Your task to perform on an android device: Open maps Image 0: 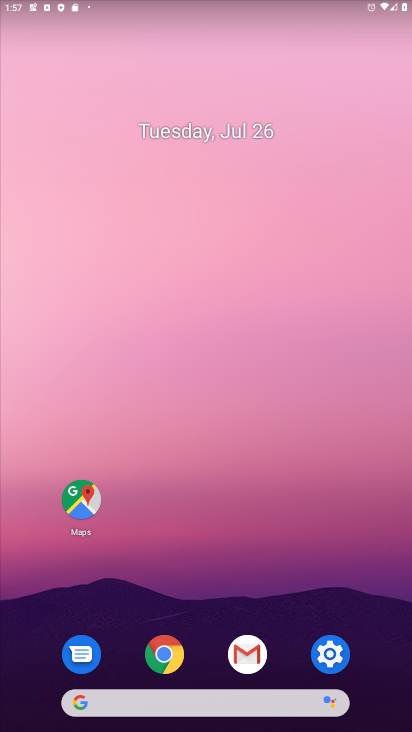
Step 0: drag from (265, 701) to (217, 362)
Your task to perform on an android device: Open maps Image 1: 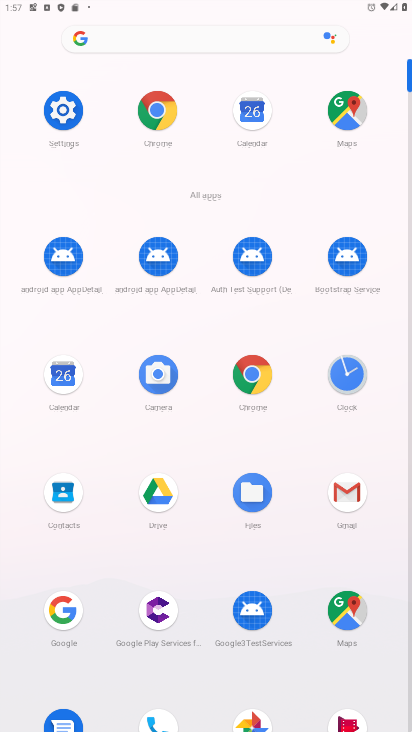
Step 1: click (345, 126)
Your task to perform on an android device: Open maps Image 2: 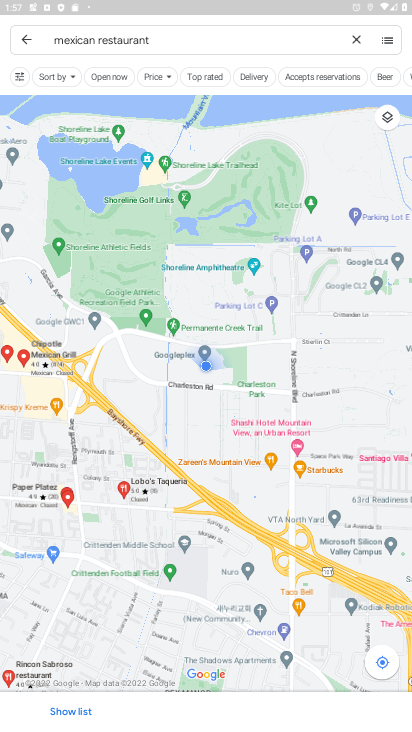
Step 2: click (26, 34)
Your task to perform on an android device: Open maps Image 3: 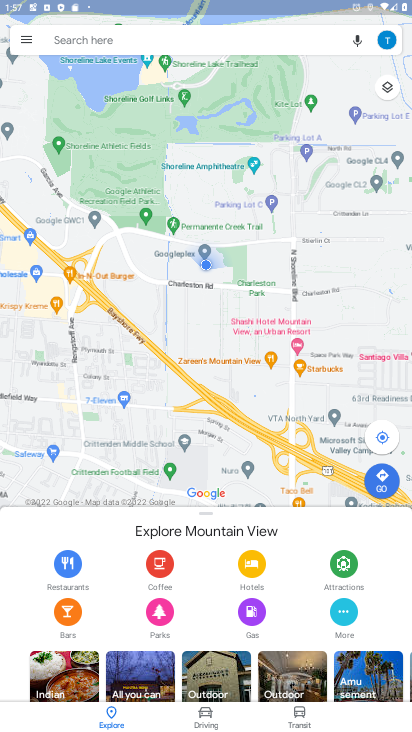
Step 3: click (384, 431)
Your task to perform on an android device: Open maps Image 4: 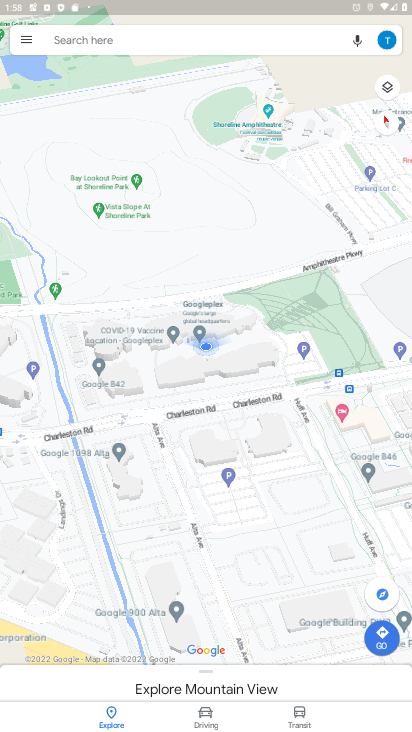
Step 4: click (375, 589)
Your task to perform on an android device: Open maps Image 5: 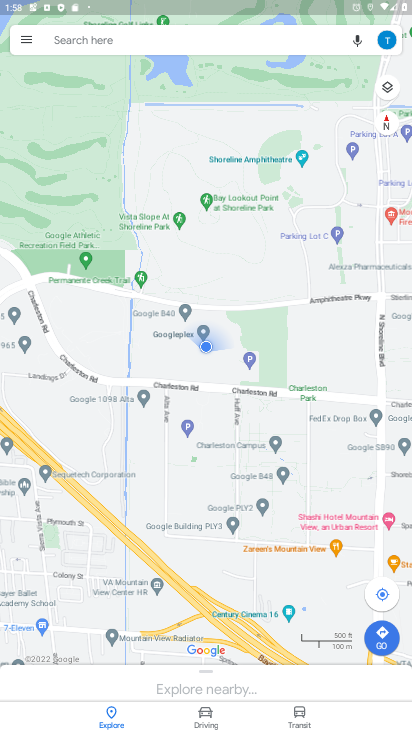
Step 5: task complete